Your task to perform on an android device: turn notification dots on Image 0: 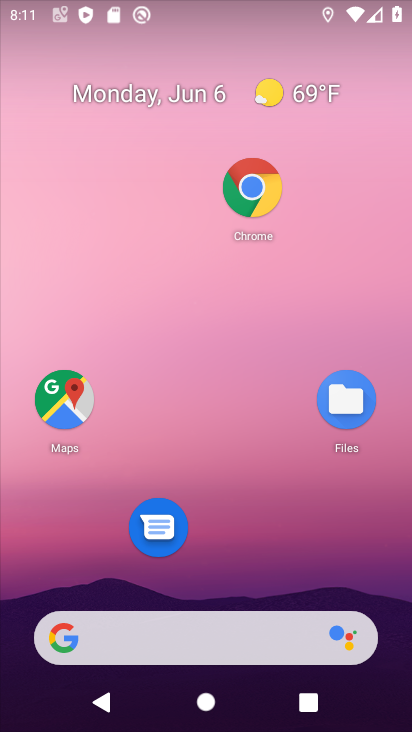
Step 0: drag from (282, 185) to (283, 63)
Your task to perform on an android device: turn notification dots on Image 1: 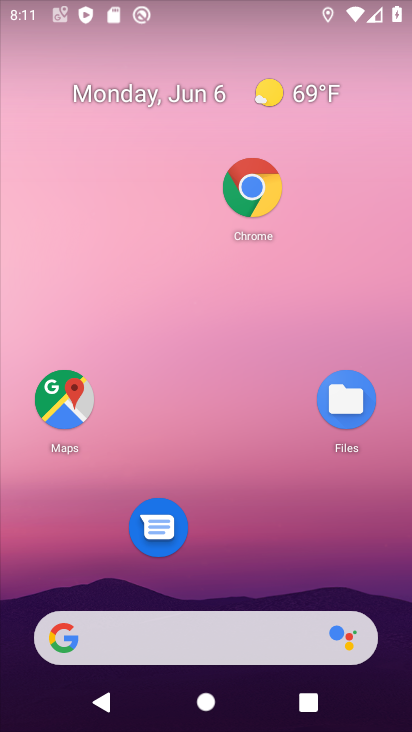
Step 1: drag from (246, 559) to (278, 61)
Your task to perform on an android device: turn notification dots on Image 2: 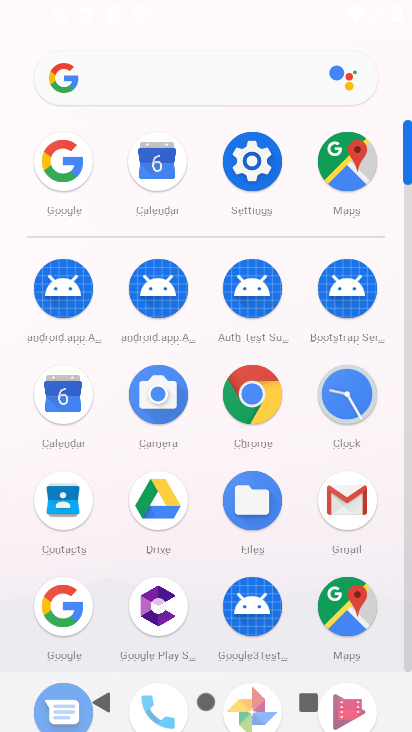
Step 2: click (252, 171)
Your task to perform on an android device: turn notification dots on Image 3: 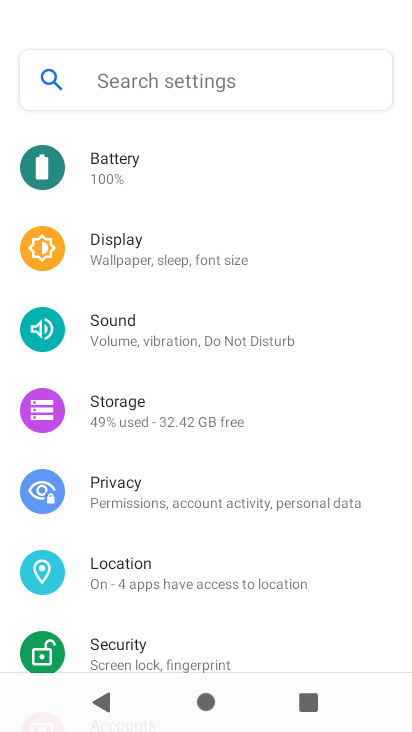
Step 3: drag from (164, 346) to (210, 609)
Your task to perform on an android device: turn notification dots on Image 4: 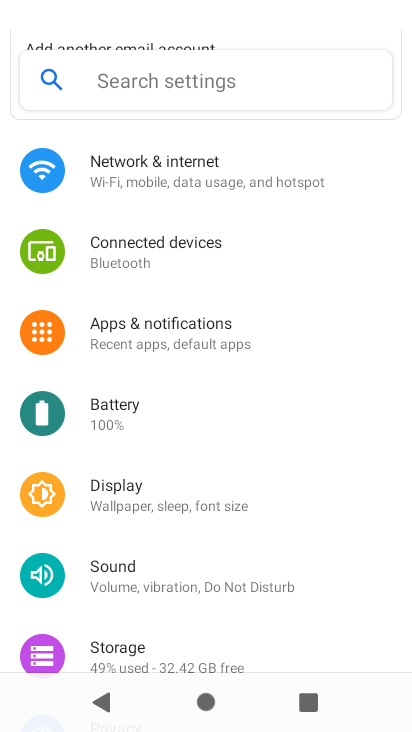
Step 4: click (158, 327)
Your task to perform on an android device: turn notification dots on Image 5: 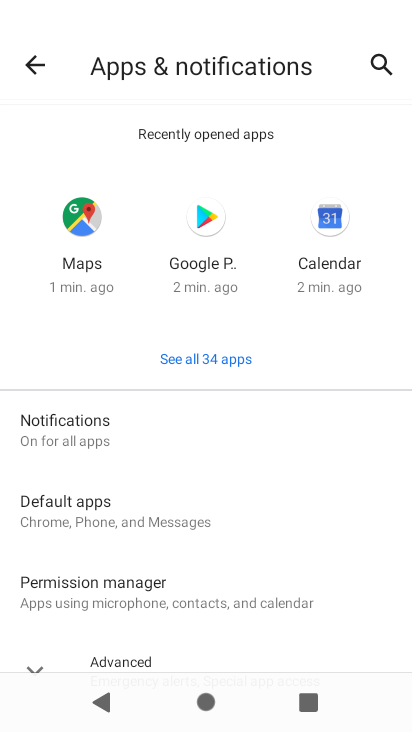
Step 5: click (105, 440)
Your task to perform on an android device: turn notification dots on Image 6: 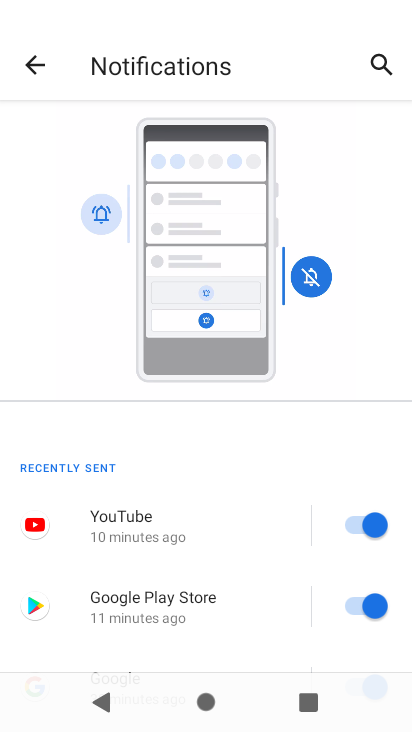
Step 6: drag from (191, 606) to (228, 239)
Your task to perform on an android device: turn notification dots on Image 7: 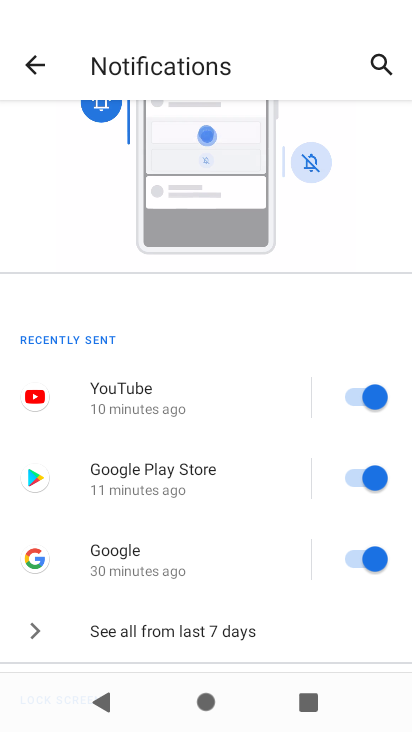
Step 7: drag from (226, 612) to (223, 245)
Your task to perform on an android device: turn notification dots on Image 8: 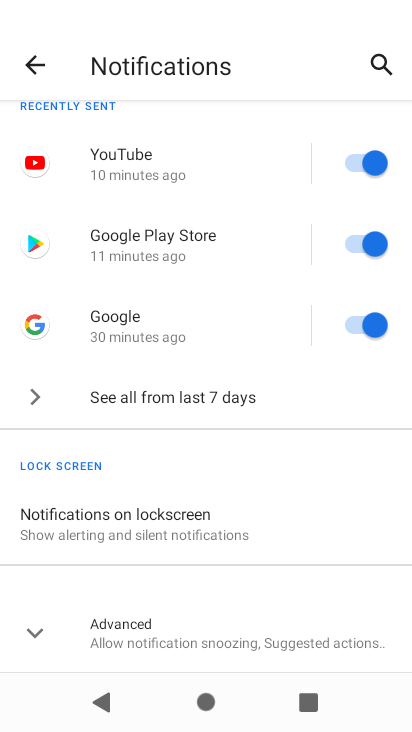
Step 8: drag from (228, 555) to (227, 339)
Your task to perform on an android device: turn notification dots on Image 9: 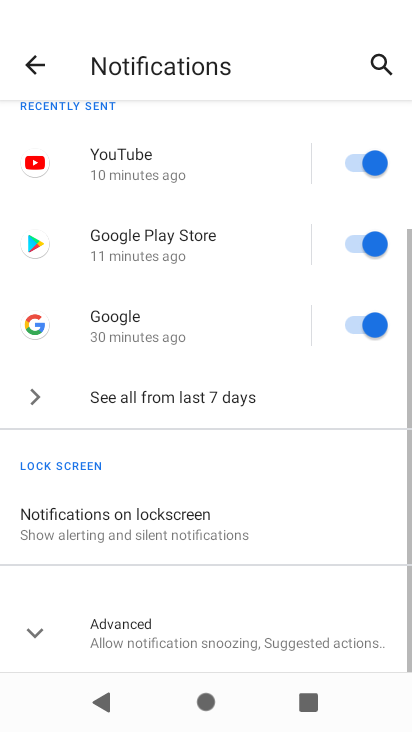
Step 9: click (152, 639)
Your task to perform on an android device: turn notification dots on Image 10: 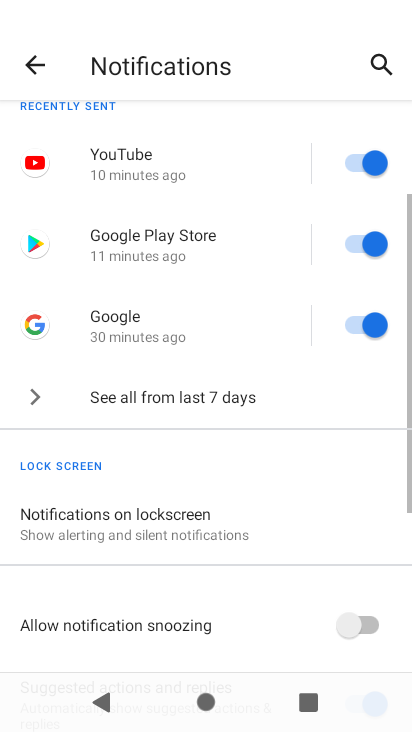
Step 10: drag from (225, 620) to (235, 147)
Your task to perform on an android device: turn notification dots on Image 11: 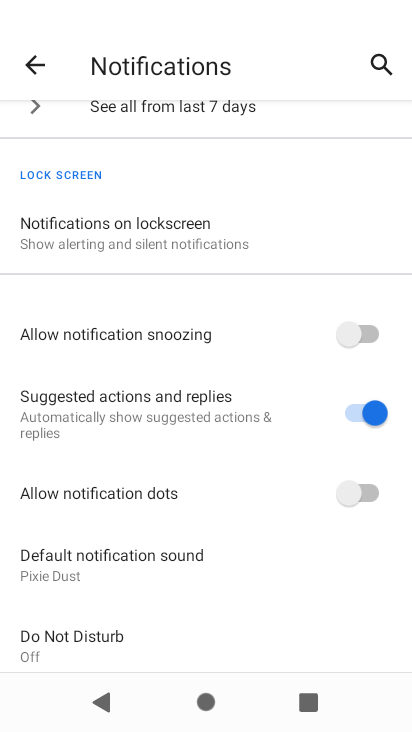
Step 11: click (362, 494)
Your task to perform on an android device: turn notification dots on Image 12: 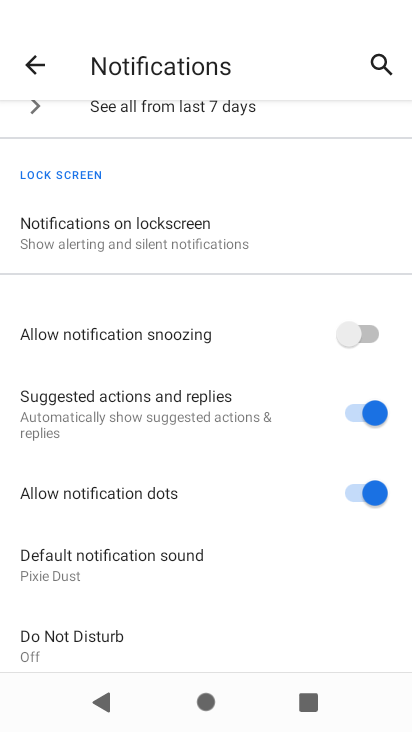
Step 12: task complete